Your task to perform on an android device: turn on bluetooth scan Image 0: 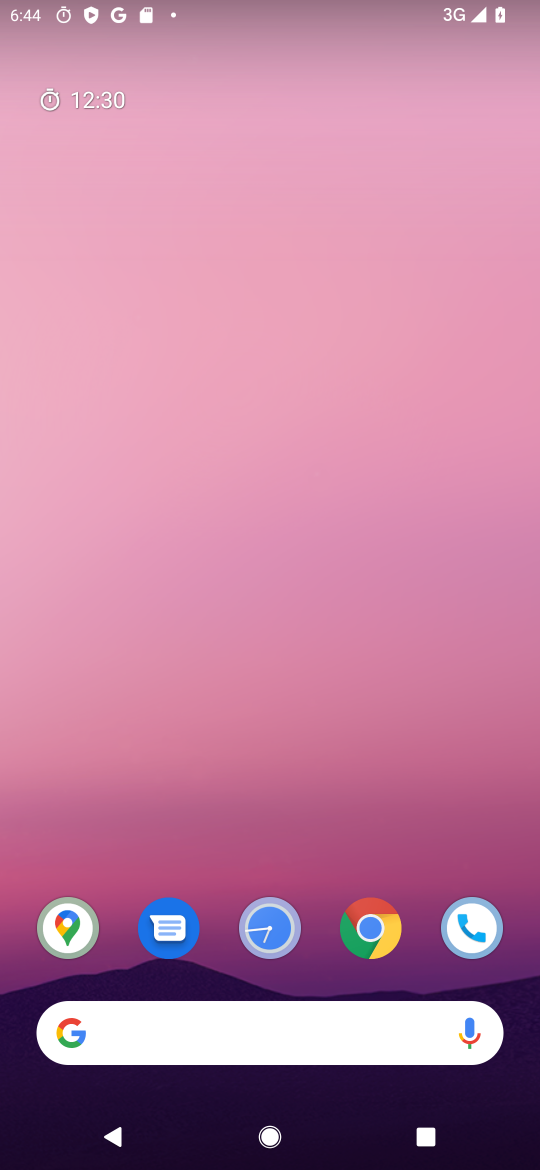
Step 0: press home button
Your task to perform on an android device: turn on bluetooth scan Image 1: 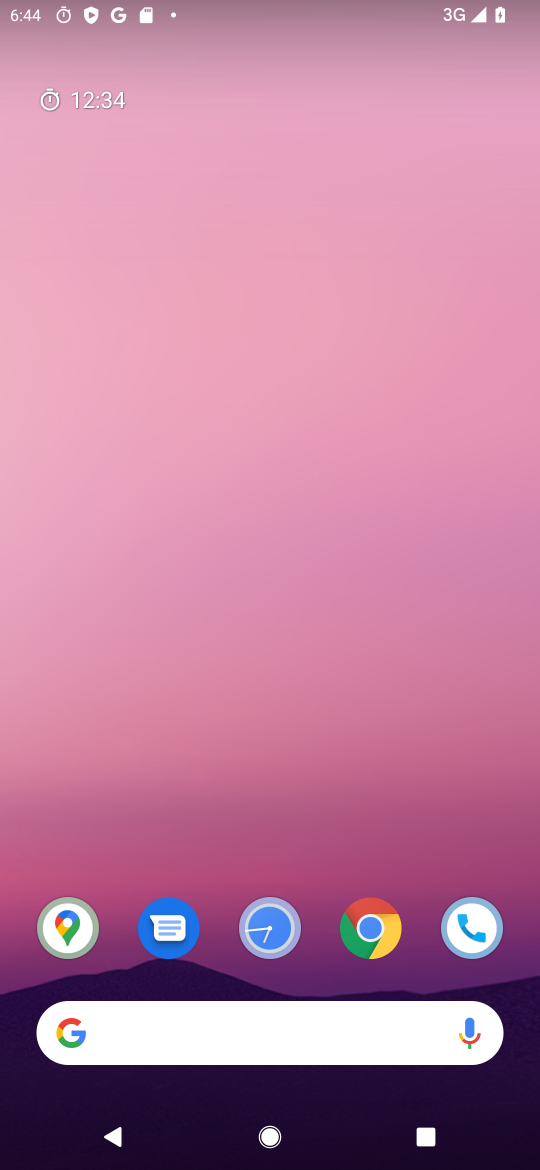
Step 1: drag from (309, 677) to (312, 96)
Your task to perform on an android device: turn on bluetooth scan Image 2: 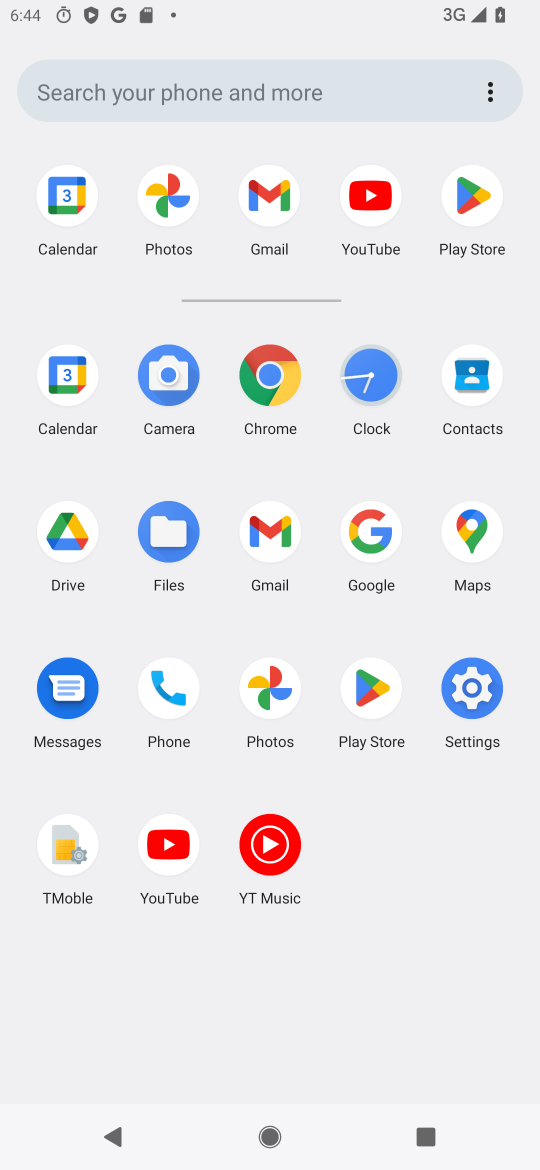
Step 2: click (479, 696)
Your task to perform on an android device: turn on bluetooth scan Image 3: 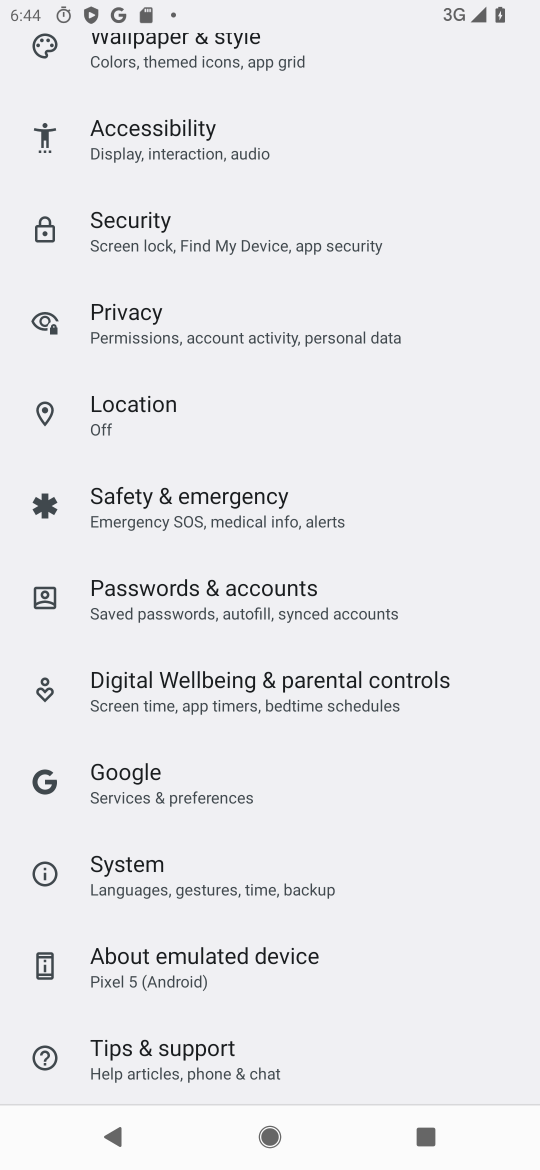
Step 3: drag from (463, 299) to (474, 670)
Your task to perform on an android device: turn on bluetooth scan Image 4: 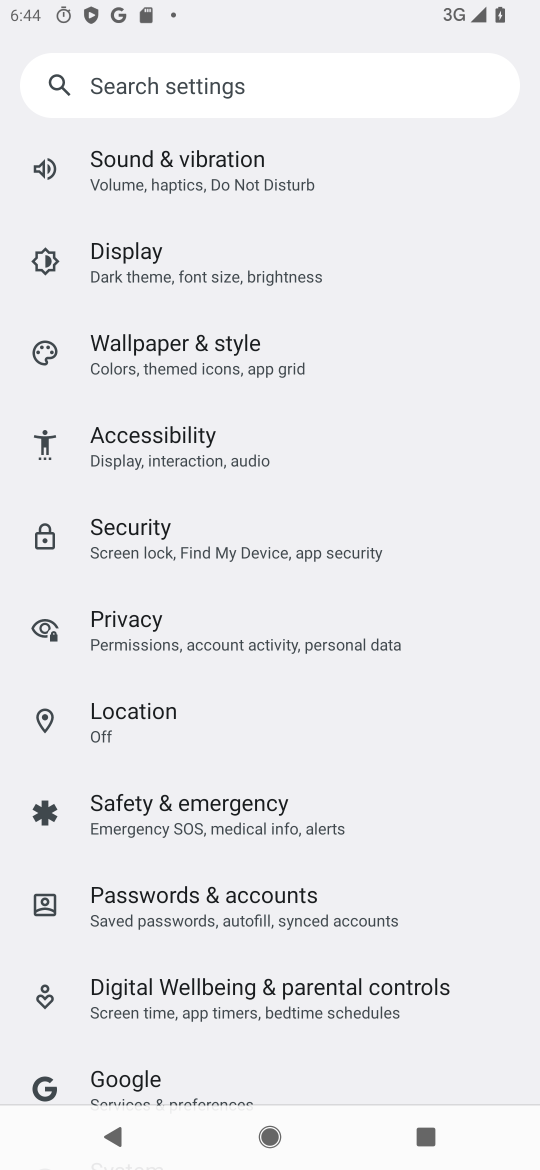
Step 4: drag from (457, 308) to (476, 714)
Your task to perform on an android device: turn on bluetooth scan Image 5: 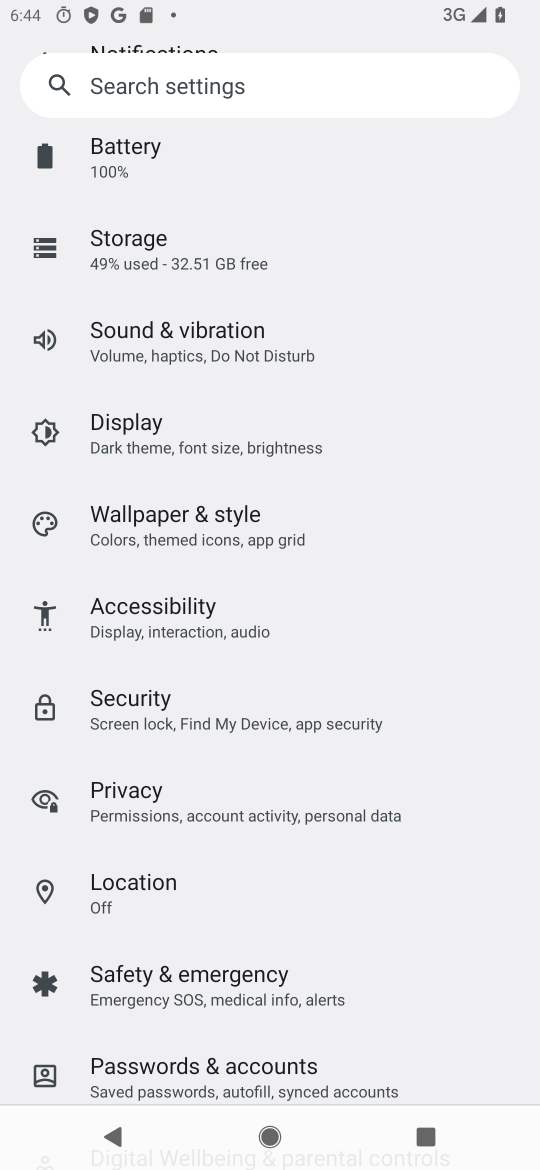
Step 5: drag from (446, 246) to (468, 698)
Your task to perform on an android device: turn on bluetooth scan Image 6: 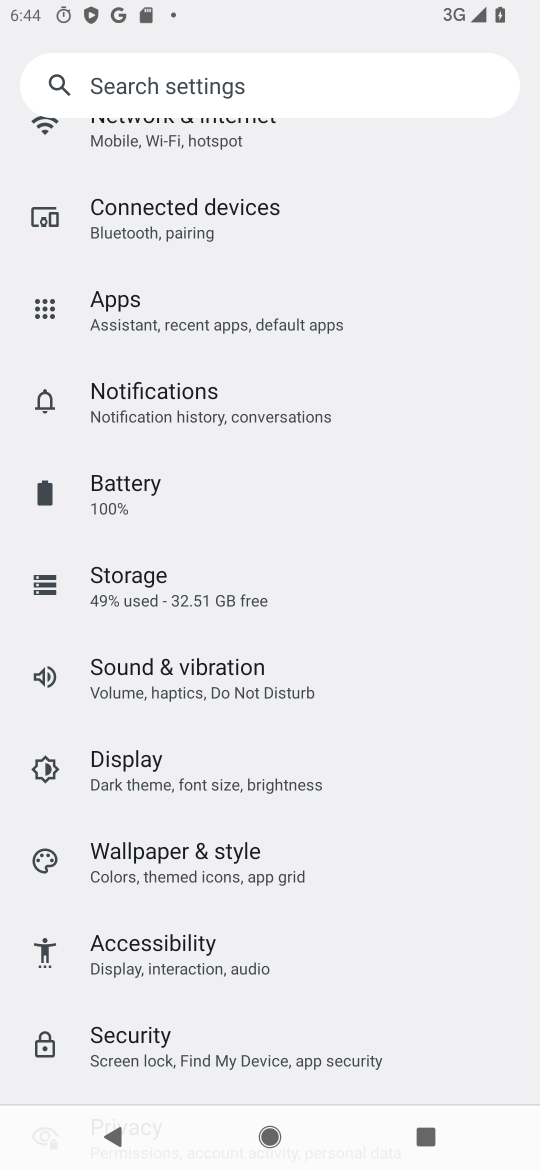
Step 6: drag from (465, 341) to (461, 705)
Your task to perform on an android device: turn on bluetooth scan Image 7: 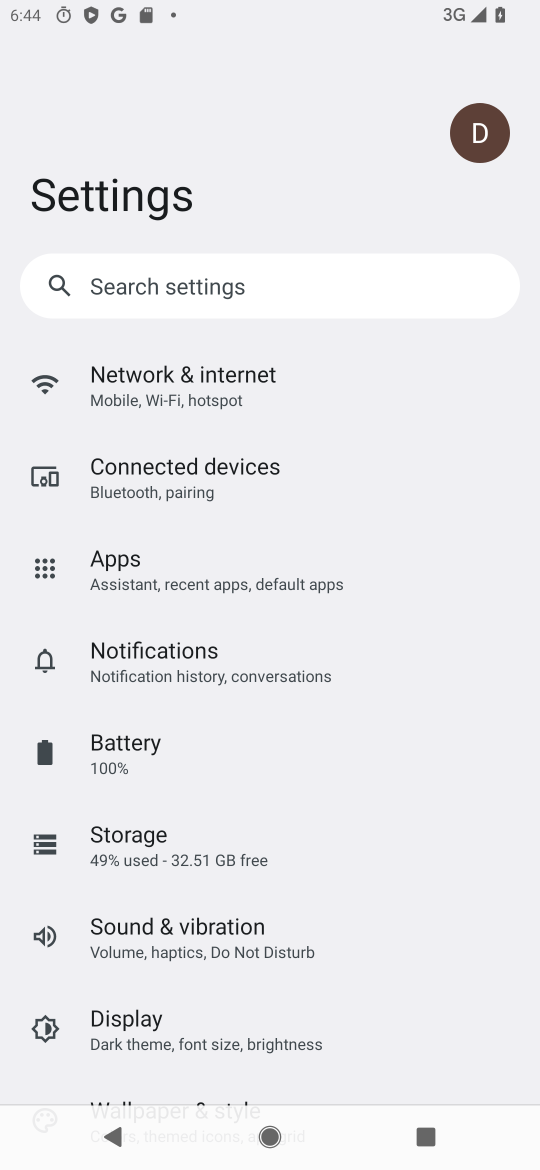
Step 7: drag from (433, 893) to (443, 554)
Your task to perform on an android device: turn on bluetooth scan Image 8: 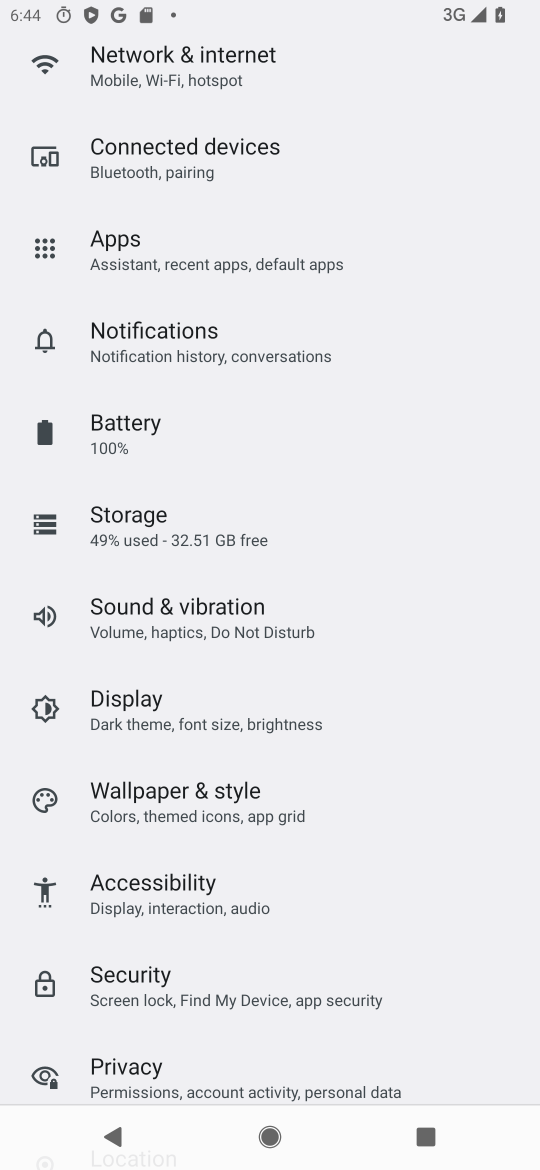
Step 8: drag from (431, 838) to (434, 540)
Your task to perform on an android device: turn on bluetooth scan Image 9: 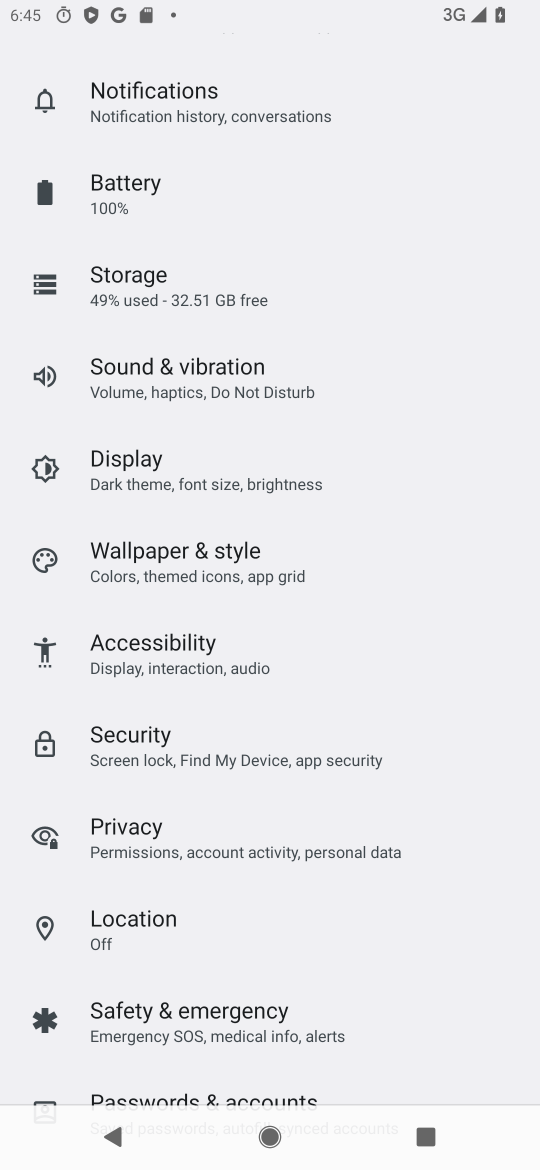
Step 9: drag from (457, 913) to (473, 491)
Your task to perform on an android device: turn on bluetooth scan Image 10: 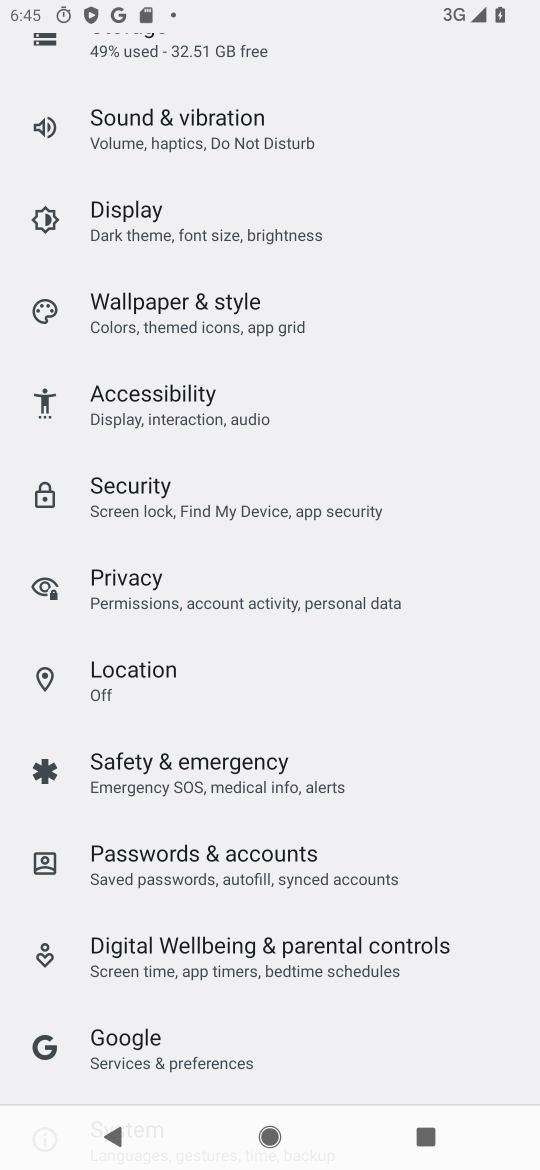
Step 10: drag from (473, 883) to (458, 486)
Your task to perform on an android device: turn on bluetooth scan Image 11: 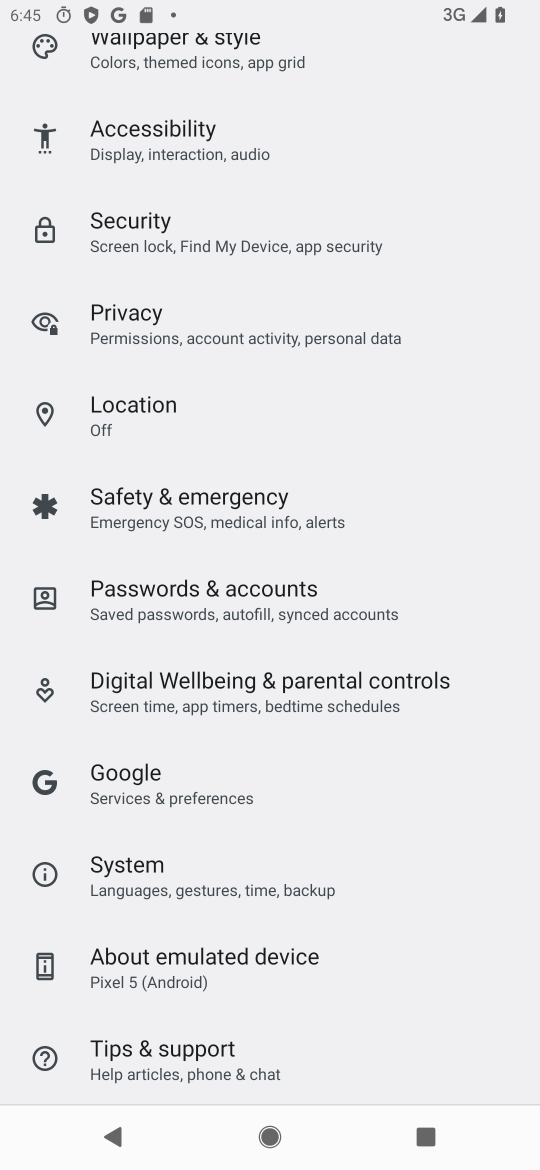
Step 11: drag from (406, 901) to (423, 553)
Your task to perform on an android device: turn on bluetooth scan Image 12: 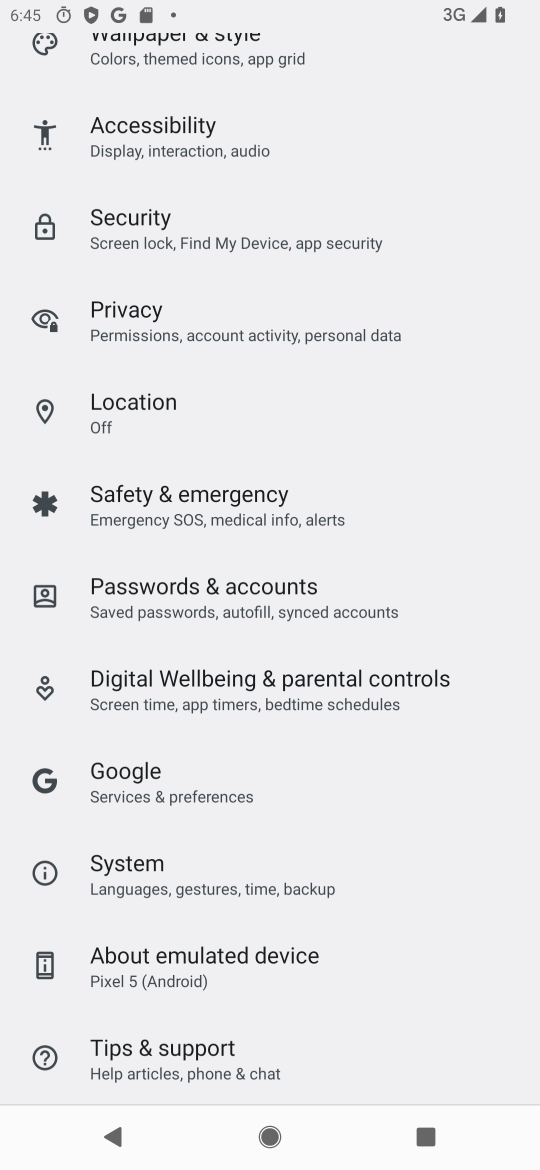
Step 12: drag from (443, 364) to (447, 825)
Your task to perform on an android device: turn on bluetooth scan Image 13: 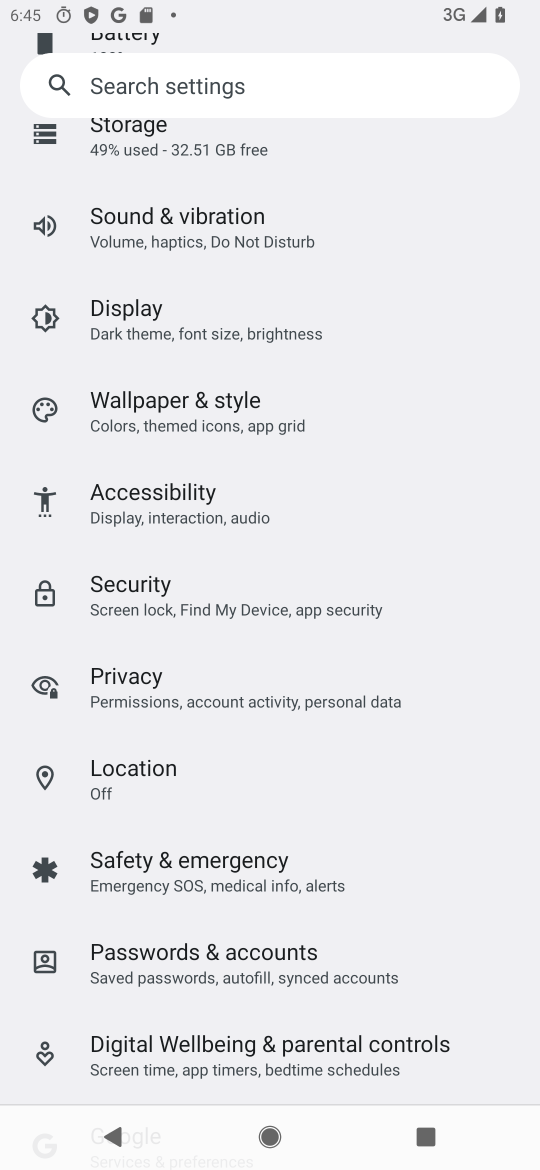
Step 13: drag from (432, 356) to (458, 664)
Your task to perform on an android device: turn on bluetooth scan Image 14: 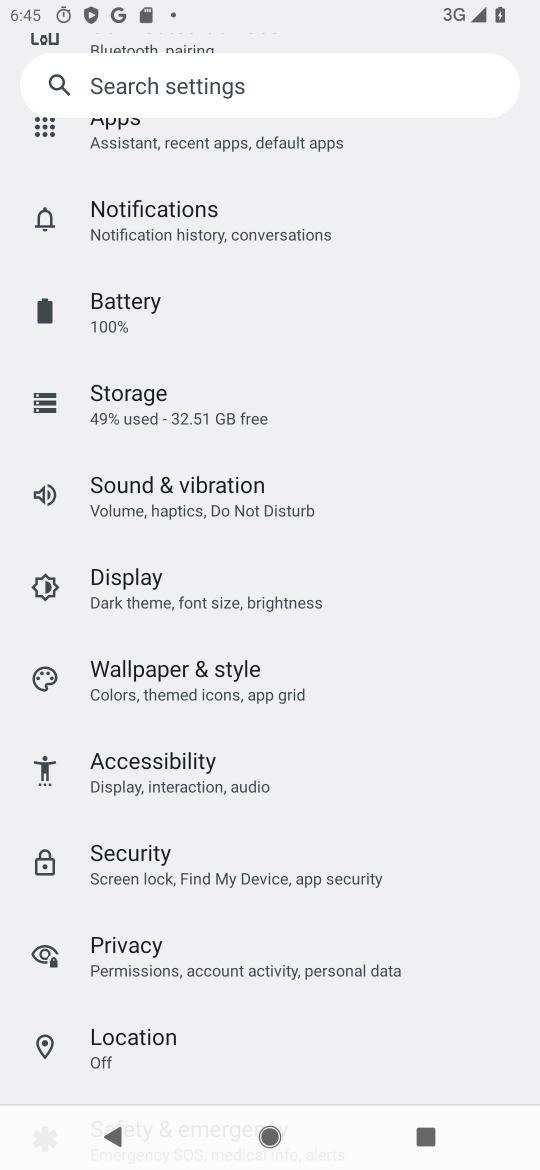
Step 14: drag from (429, 200) to (432, 678)
Your task to perform on an android device: turn on bluetooth scan Image 15: 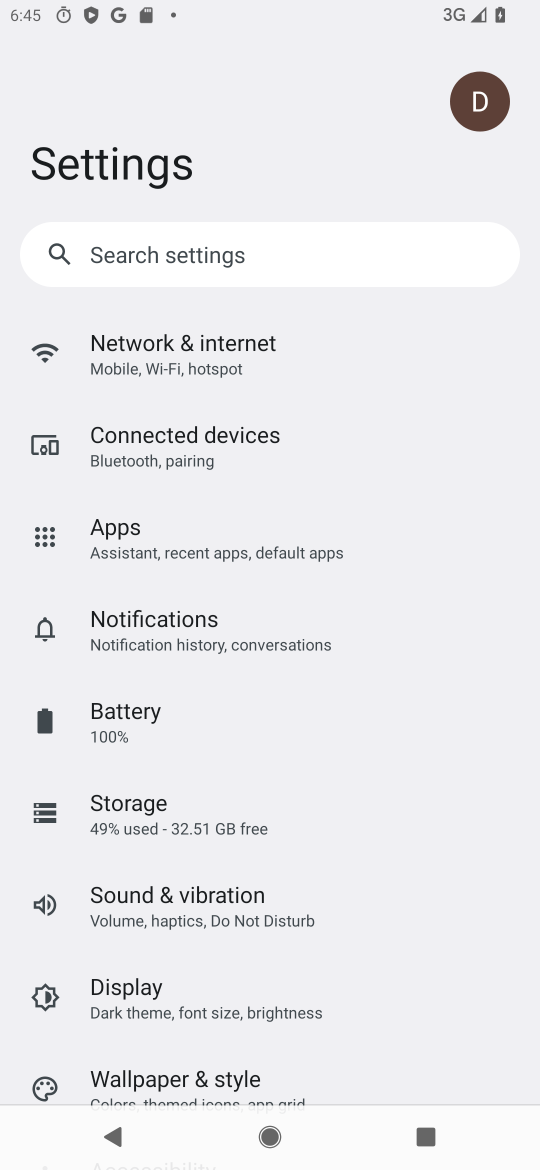
Step 15: drag from (381, 842) to (412, 598)
Your task to perform on an android device: turn on bluetooth scan Image 16: 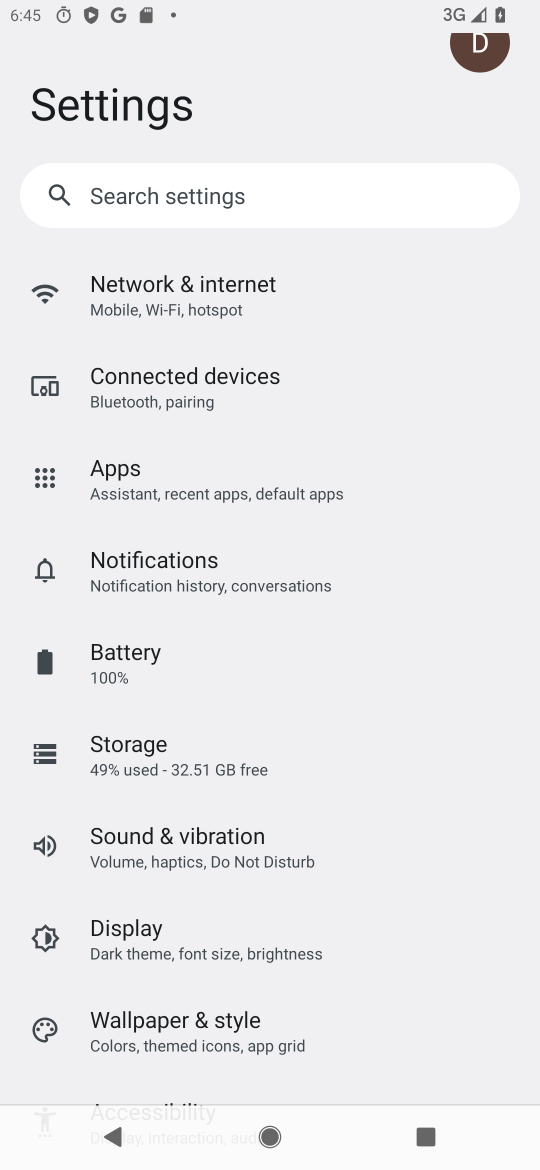
Step 16: drag from (363, 816) to (414, 554)
Your task to perform on an android device: turn on bluetooth scan Image 17: 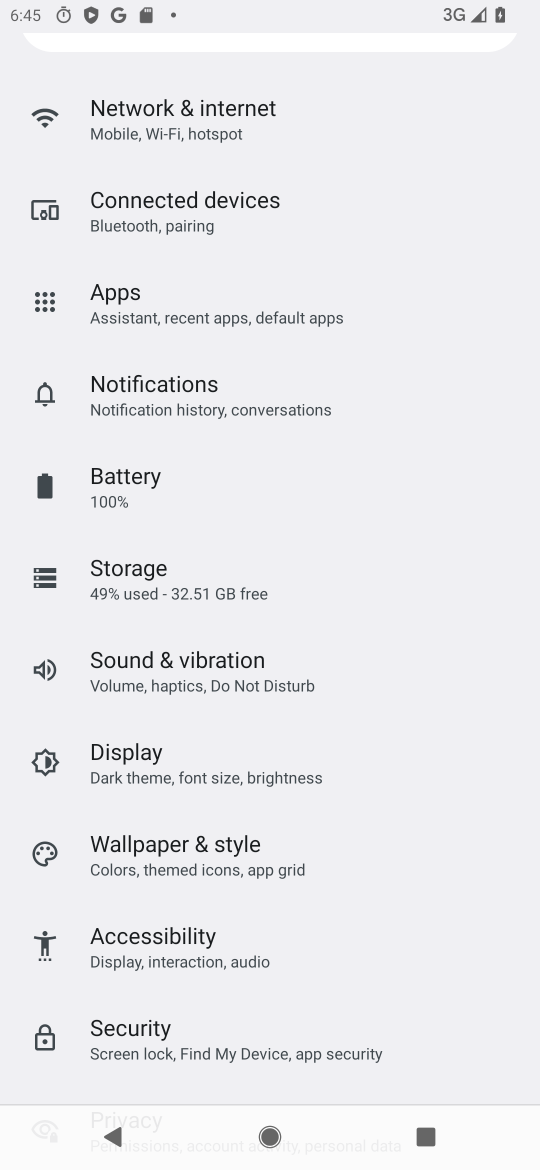
Step 17: drag from (389, 921) to (377, 514)
Your task to perform on an android device: turn on bluetooth scan Image 18: 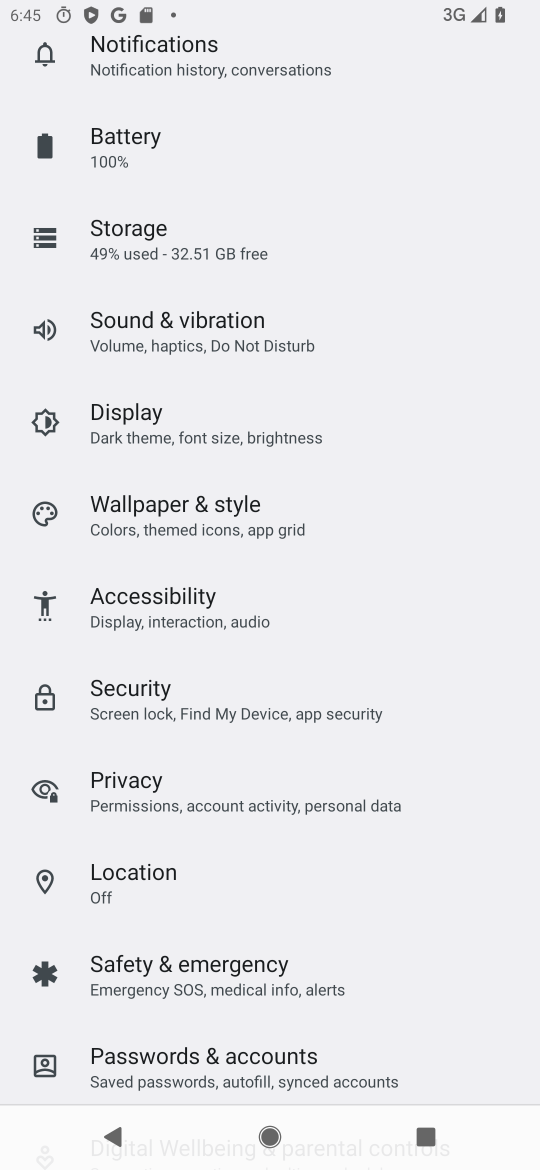
Step 18: click (212, 894)
Your task to perform on an android device: turn on bluetooth scan Image 19: 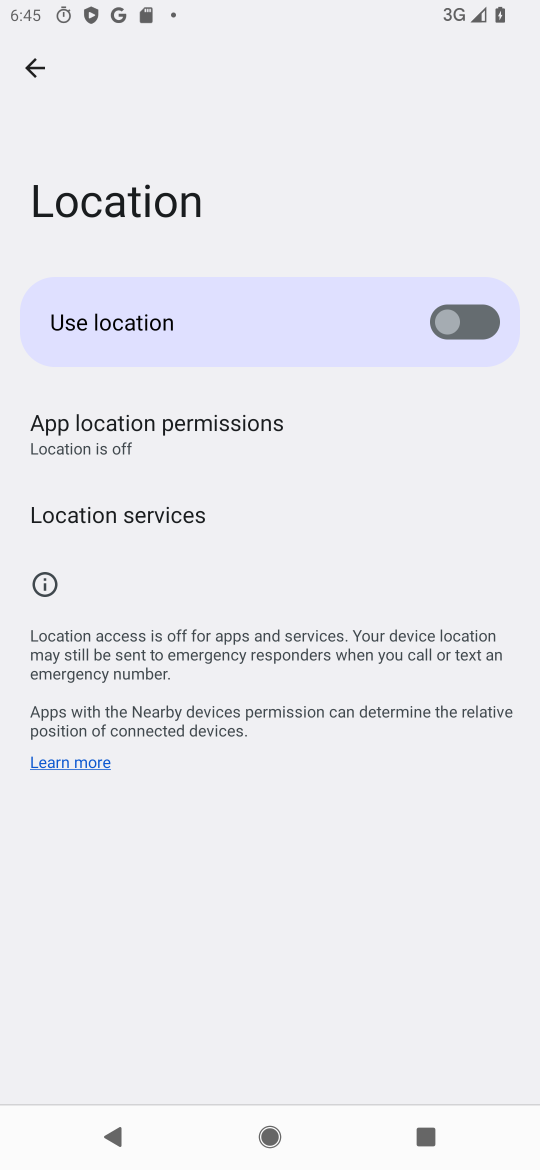
Step 19: click (468, 325)
Your task to perform on an android device: turn on bluetooth scan Image 20: 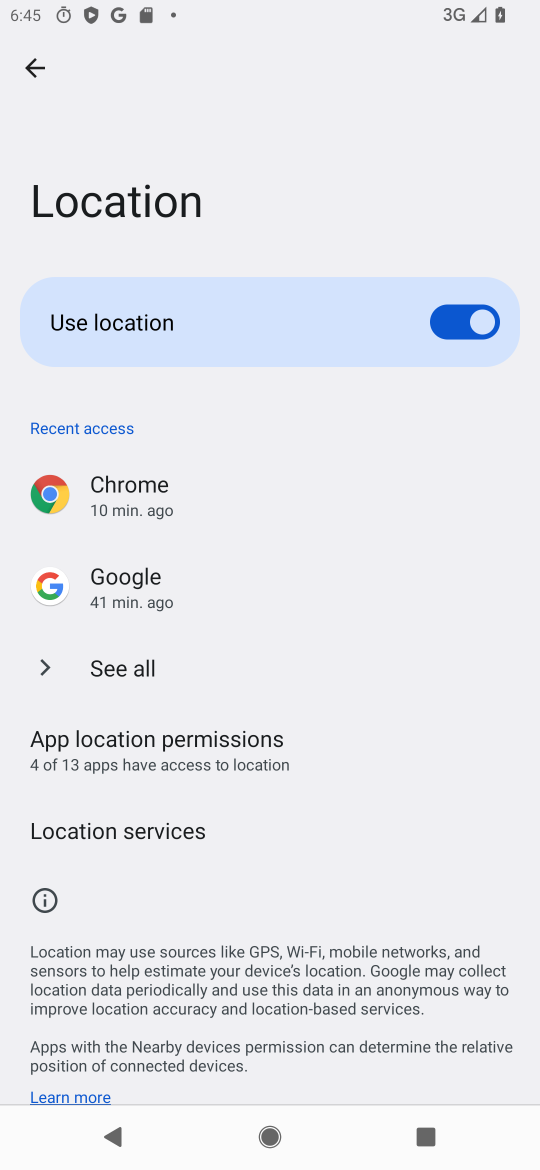
Step 20: task complete